Your task to perform on an android device: Open Chrome and go to settings Image 0: 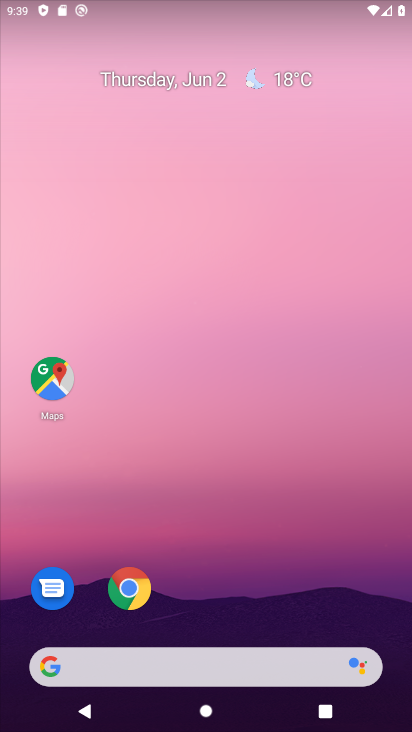
Step 0: click (260, 241)
Your task to perform on an android device: Open Chrome and go to settings Image 1: 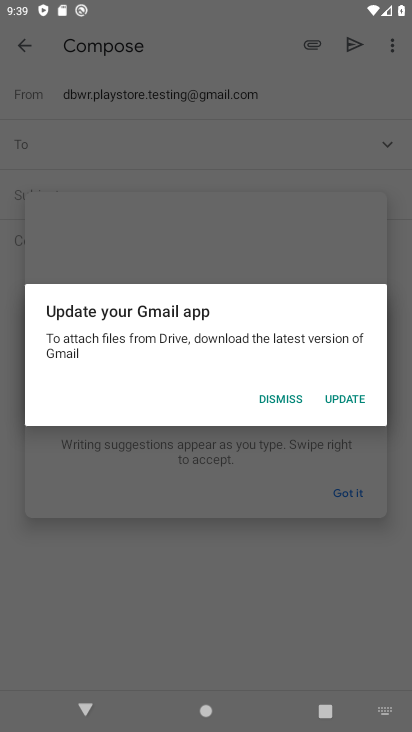
Step 1: click (339, 510)
Your task to perform on an android device: Open Chrome and go to settings Image 2: 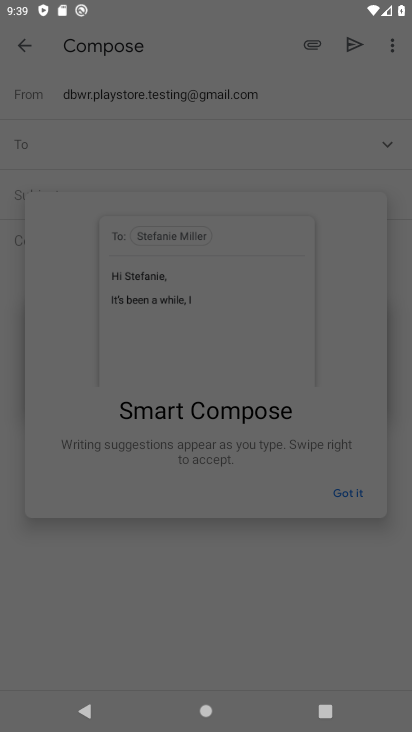
Step 2: press back button
Your task to perform on an android device: Open Chrome and go to settings Image 3: 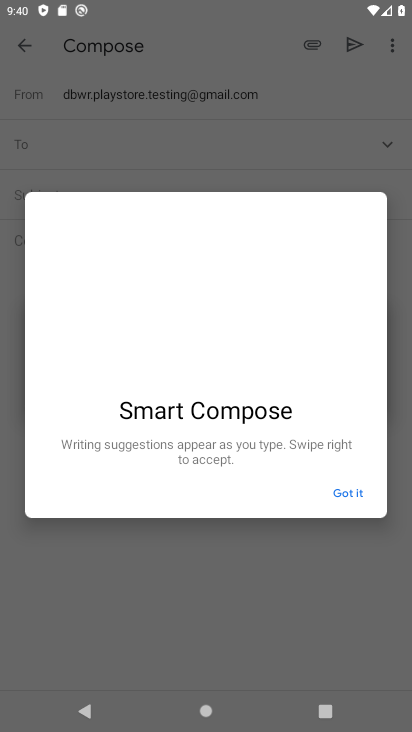
Step 3: click (358, 489)
Your task to perform on an android device: Open Chrome and go to settings Image 4: 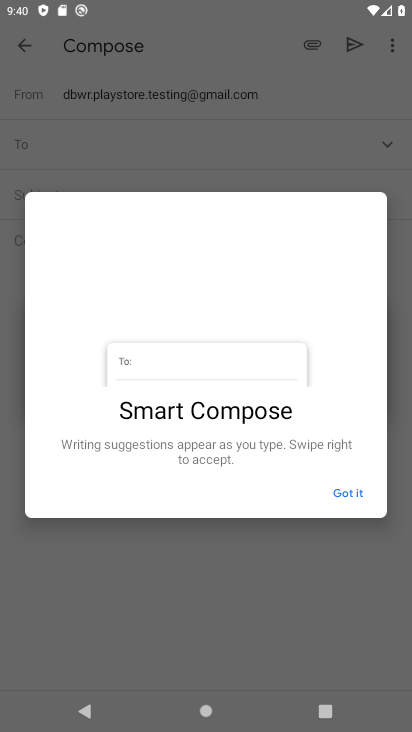
Step 4: click (355, 490)
Your task to perform on an android device: Open Chrome and go to settings Image 5: 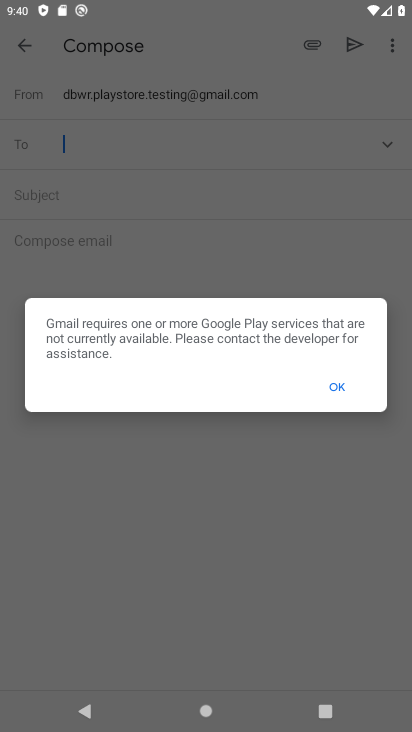
Step 5: click (356, 491)
Your task to perform on an android device: Open Chrome and go to settings Image 6: 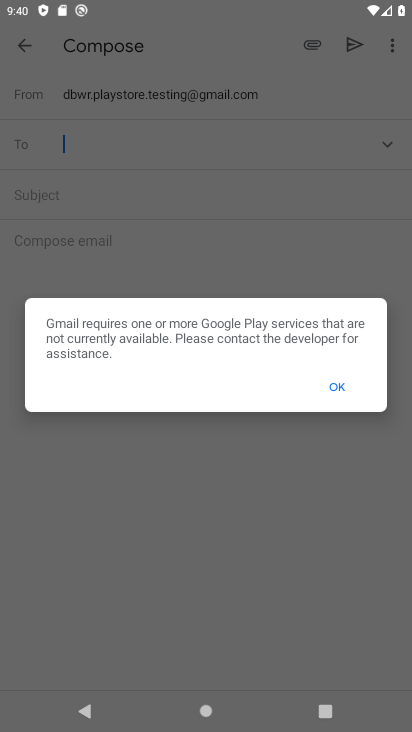
Step 6: click (360, 488)
Your task to perform on an android device: Open Chrome and go to settings Image 7: 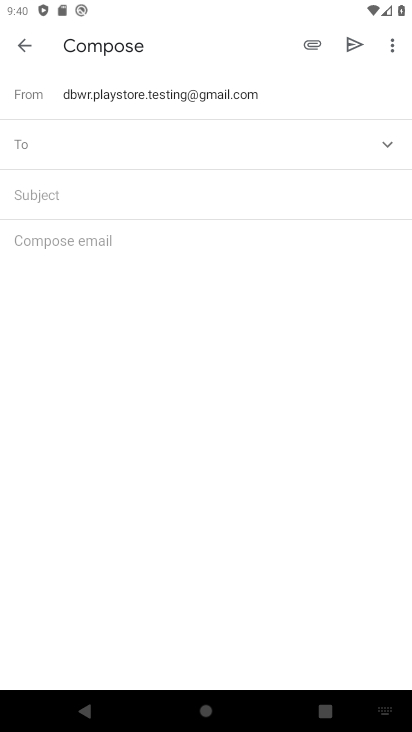
Step 7: click (23, 55)
Your task to perform on an android device: Open Chrome and go to settings Image 8: 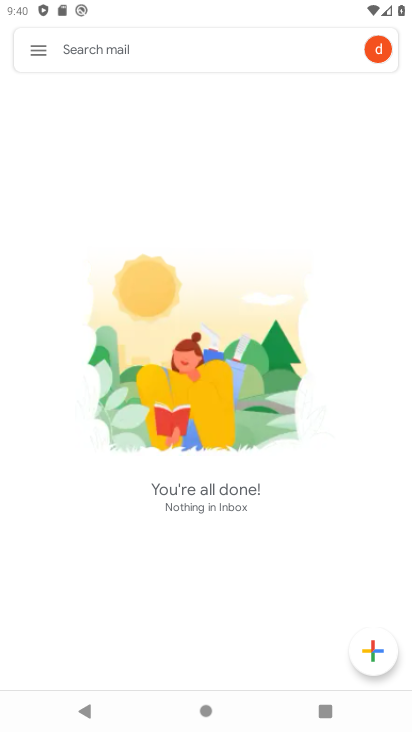
Step 8: press back button
Your task to perform on an android device: Open Chrome and go to settings Image 9: 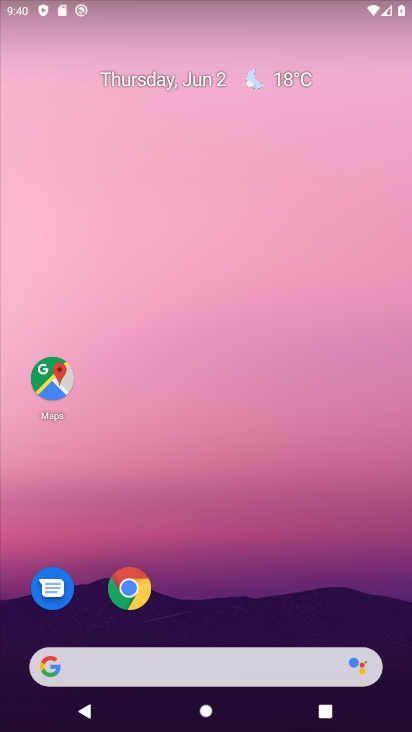
Step 9: press home button
Your task to perform on an android device: Open Chrome and go to settings Image 10: 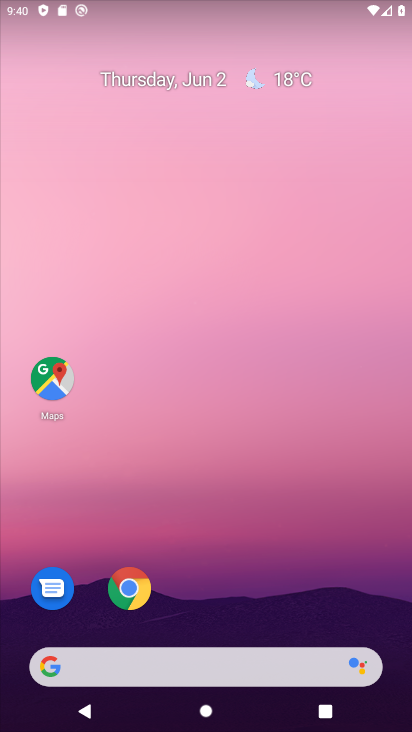
Step 10: drag from (254, 705) to (170, 108)
Your task to perform on an android device: Open Chrome and go to settings Image 11: 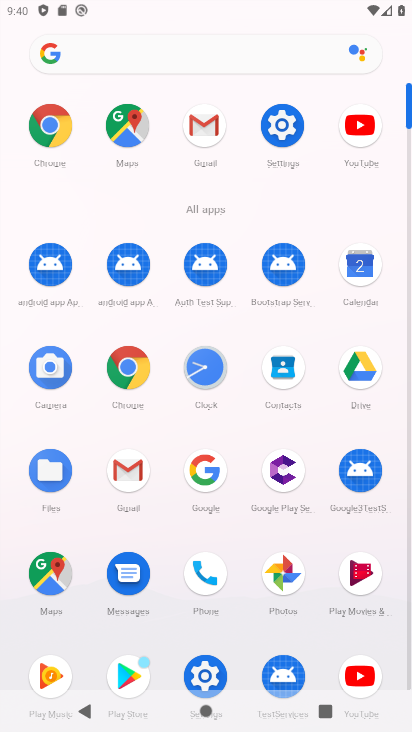
Step 11: click (281, 133)
Your task to perform on an android device: Open Chrome and go to settings Image 12: 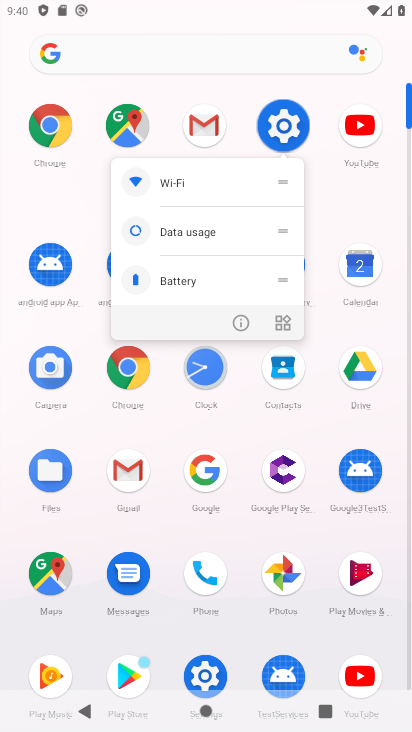
Step 12: click (276, 133)
Your task to perform on an android device: Open Chrome and go to settings Image 13: 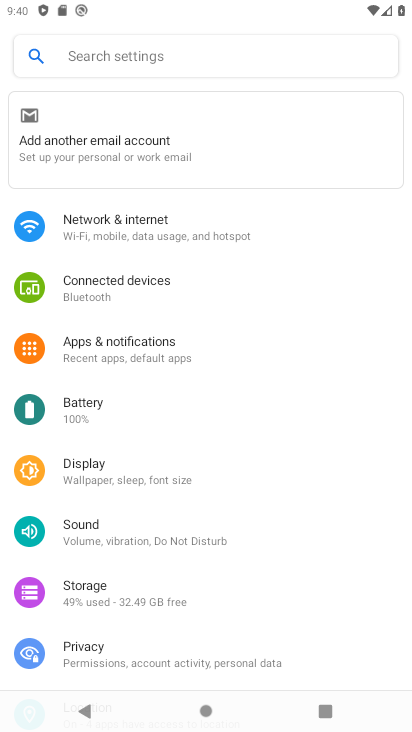
Step 13: press back button
Your task to perform on an android device: Open Chrome and go to settings Image 14: 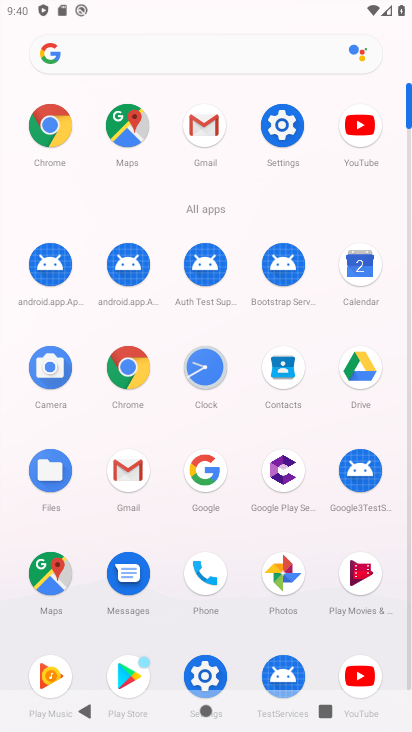
Step 14: click (57, 128)
Your task to perform on an android device: Open Chrome and go to settings Image 15: 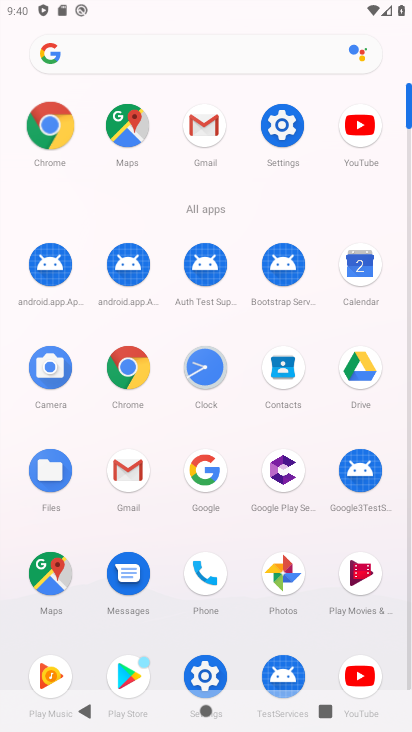
Step 15: click (57, 128)
Your task to perform on an android device: Open Chrome and go to settings Image 16: 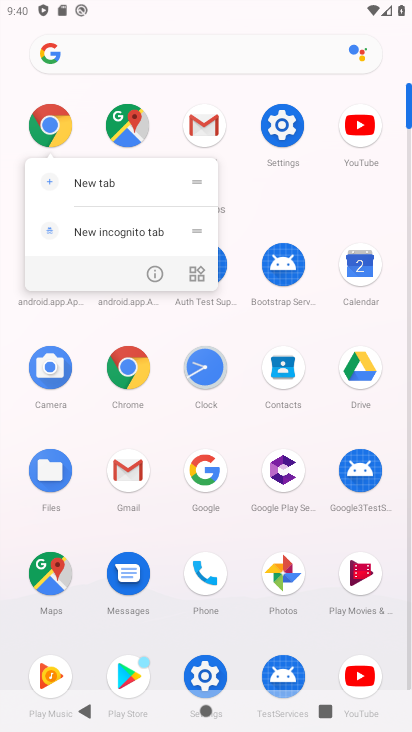
Step 16: click (66, 137)
Your task to perform on an android device: Open Chrome and go to settings Image 17: 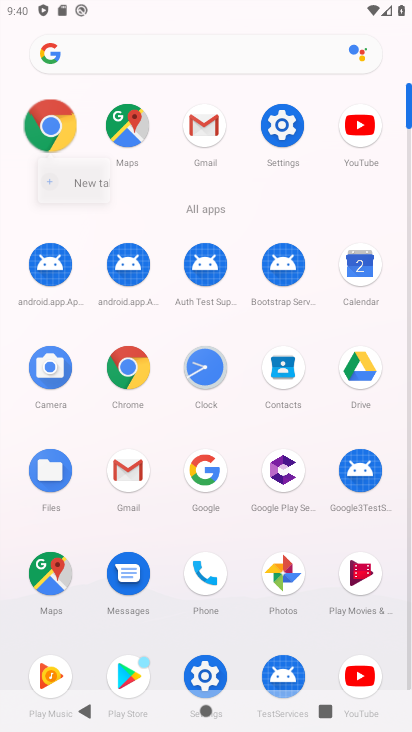
Step 17: click (68, 140)
Your task to perform on an android device: Open Chrome and go to settings Image 18: 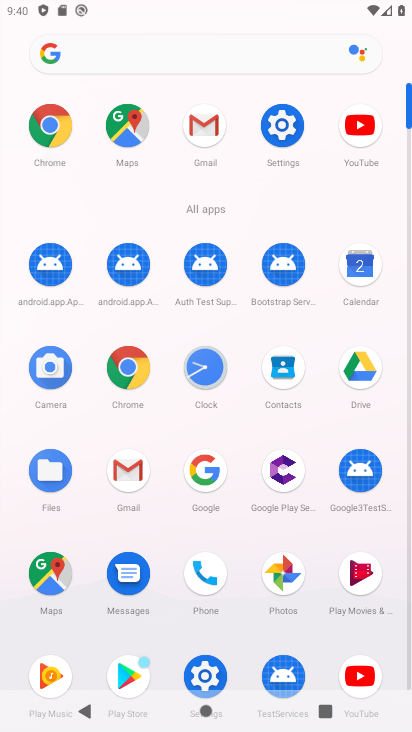
Step 18: click (66, 141)
Your task to perform on an android device: Open Chrome and go to settings Image 19: 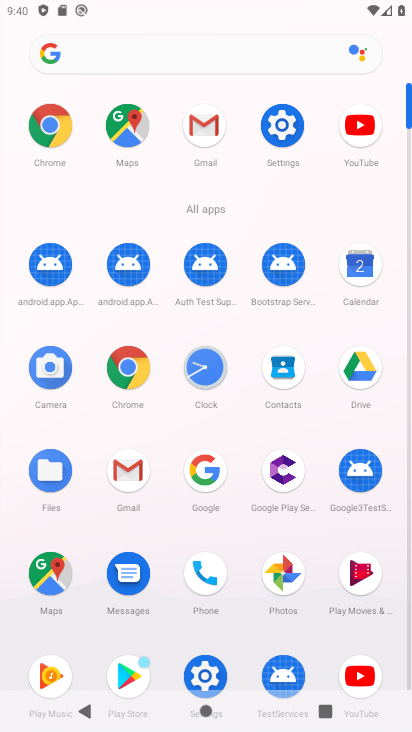
Step 19: click (66, 141)
Your task to perform on an android device: Open Chrome and go to settings Image 20: 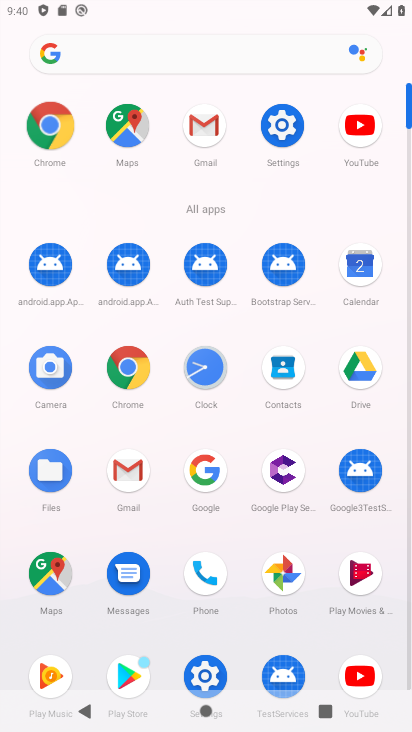
Step 20: click (61, 139)
Your task to perform on an android device: Open Chrome and go to settings Image 21: 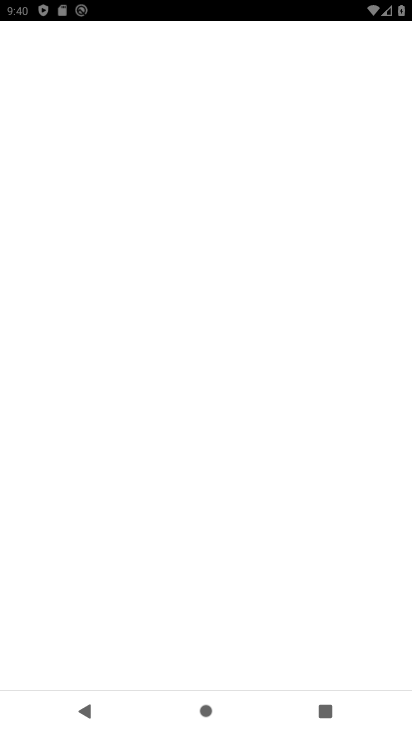
Step 21: click (61, 139)
Your task to perform on an android device: Open Chrome and go to settings Image 22: 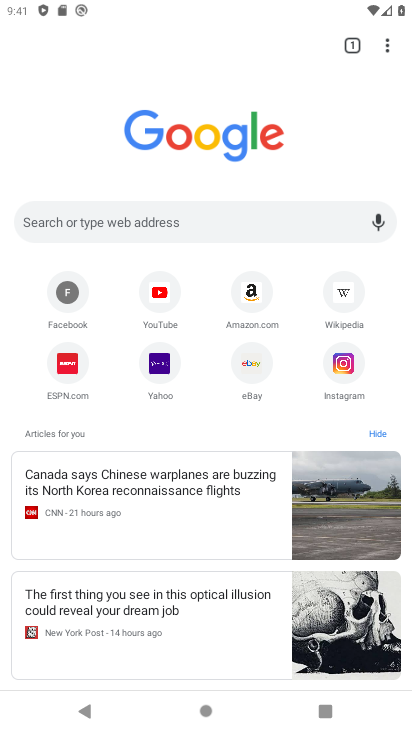
Step 22: drag from (387, 48) to (216, 383)
Your task to perform on an android device: Open Chrome and go to settings Image 23: 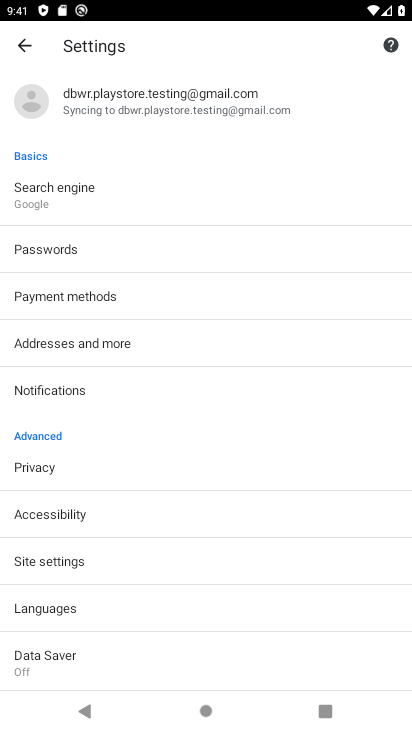
Step 23: click (38, 562)
Your task to perform on an android device: Open Chrome and go to settings Image 24: 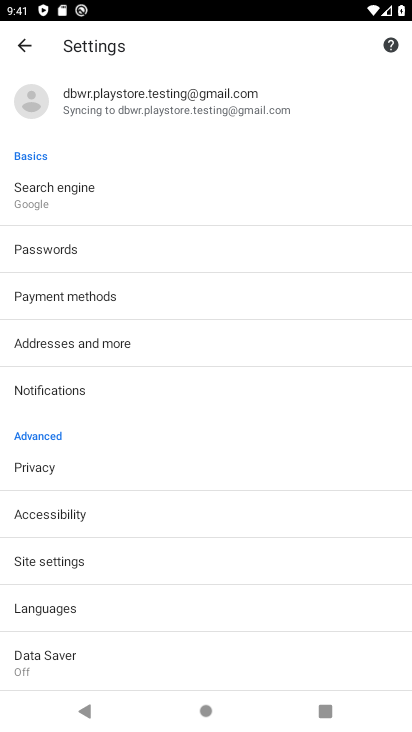
Step 24: click (38, 562)
Your task to perform on an android device: Open Chrome and go to settings Image 25: 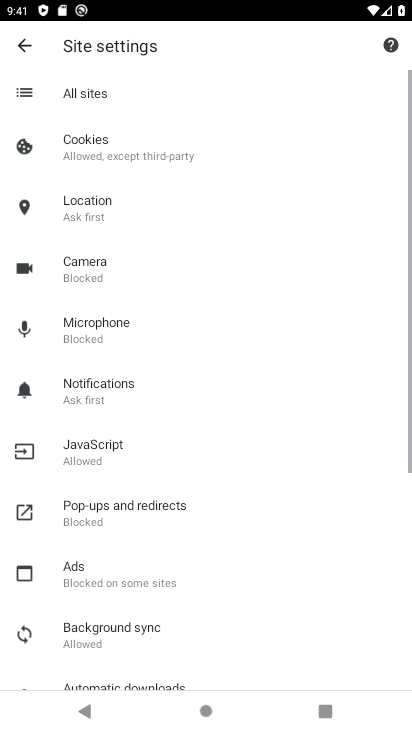
Step 25: click (38, 562)
Your task to perform on an android device: Open Chrome and go to settings Image 26: 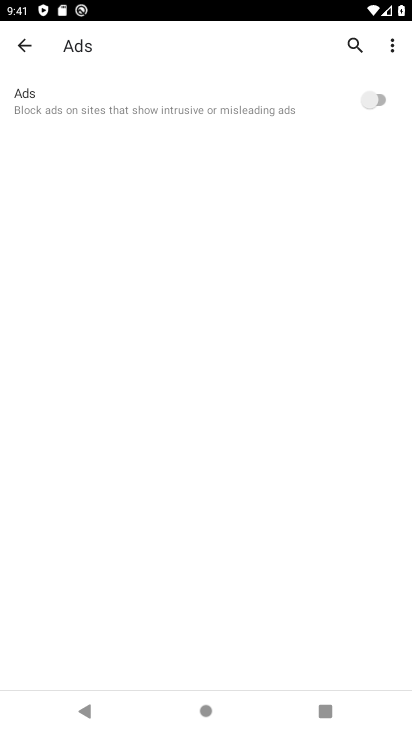
Step 26: click (17, 44)
Your task to perform on an android device: Open Chrome and go to settings Image 27: 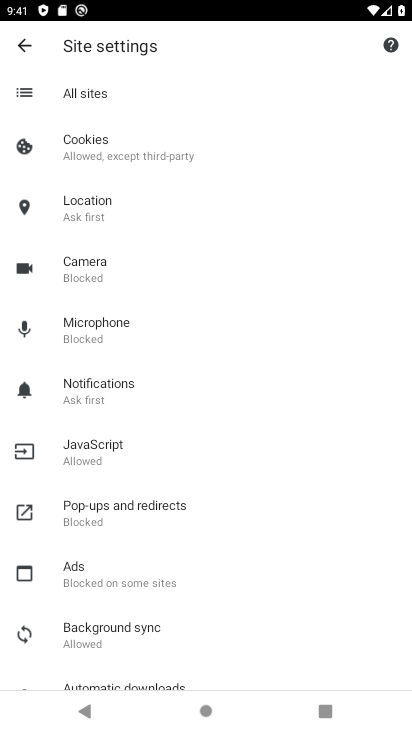
Step 27: task complete